Your task to perform on an android device: turn on location history Image 0: 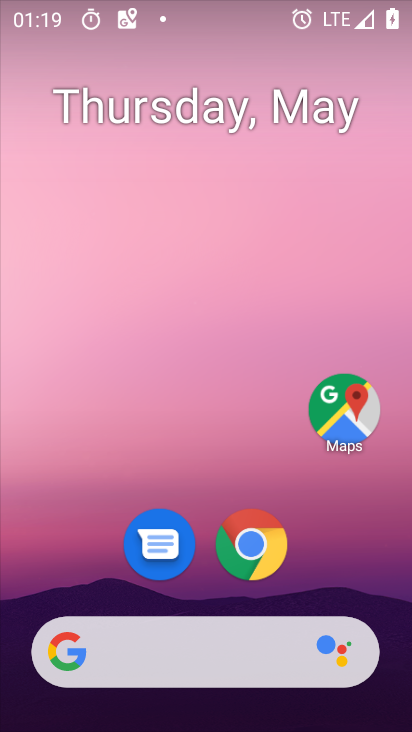
Step 0: drag from (368, 579) to (349, 178)
Your task to perform on an android device: turn on location history Image 1: 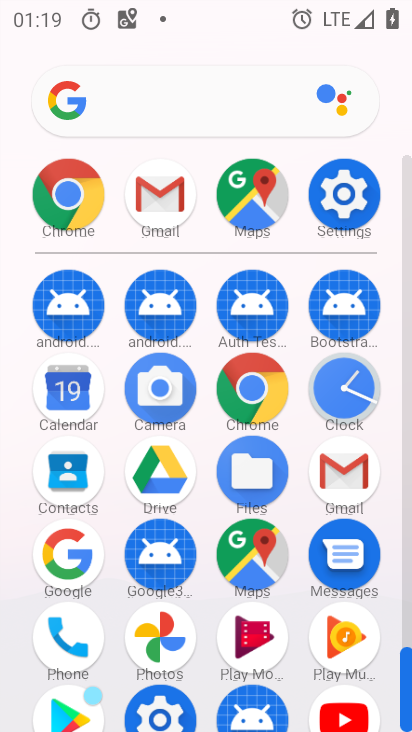
Step 1: drag from (293, 618) to (289, 340)
Your task to perform on an android device: turn on location history Image 2: 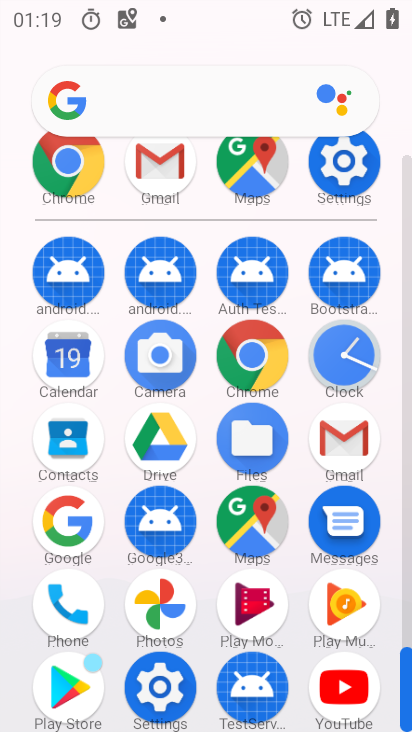
Step 2: drag from (293, 627) to (297, 375)
Your task to perform on an android device: turn on location history Image 3: 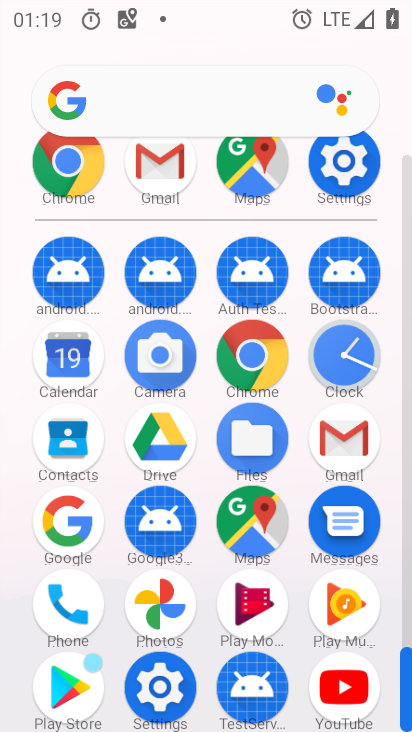
Step 3: click (350, 167)
Your task to perform on an android device: turn on location history Image 4: 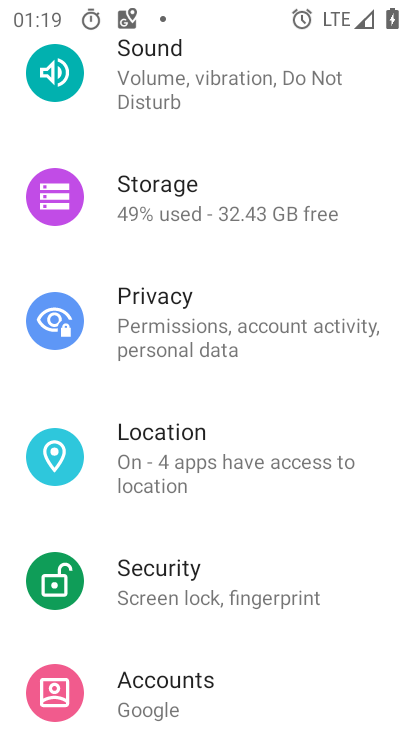
Step 4: drag from (356, 615) to (345, 350)
Your task to perform on an android device: turn on location history Image 5: 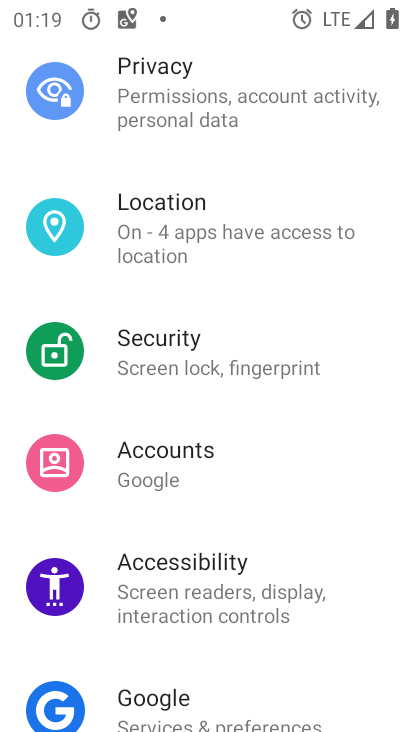
Step 5: drag from (321, 610) to (328, 404)
Your task to perform on an android device: turn on location history Image 6: 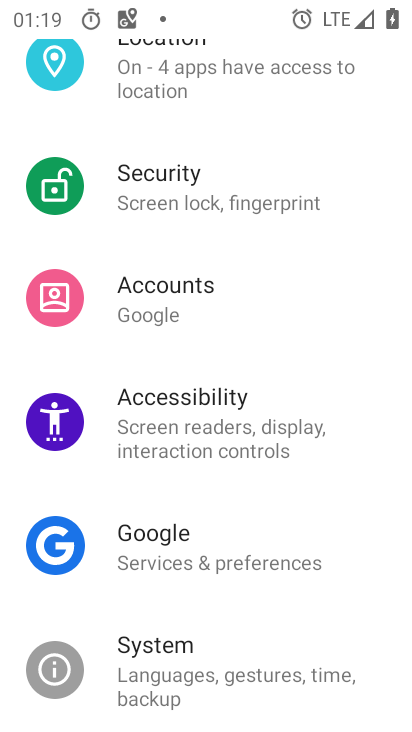
Step 6: drag from (316, 622) to (317, 447)
Your task to perform on an android device: turn on location history Image 7: 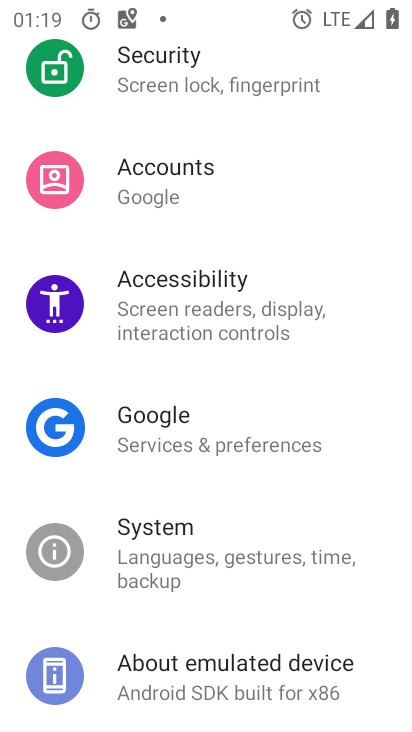
Step 7: drag from (343, 592) to (345, 346)
Your task to perform on an android device: turn on location history Image 8: 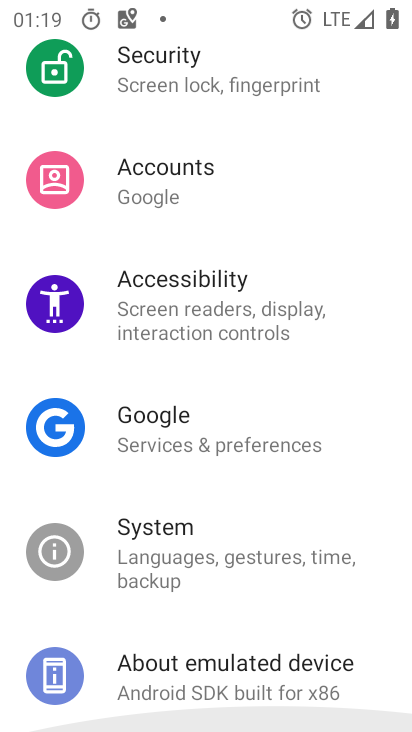
Step 8: drag from (351, 251) to (353, 499)
Your task to perform on an android device: turn on location history Image 9: 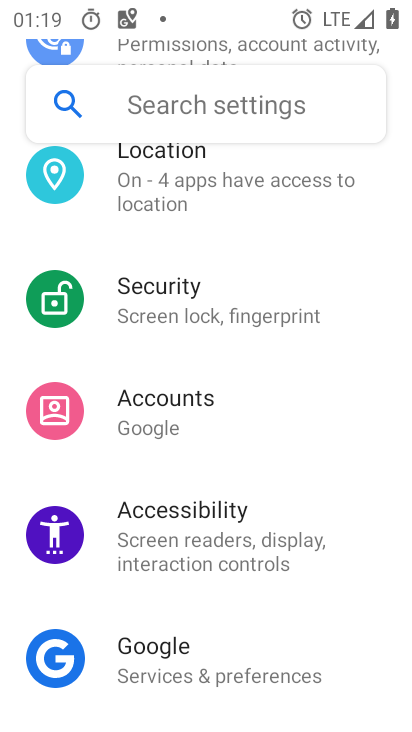
Step 9: drag from (335, 296) to (335, 477)
Your task to perform on an android device: turn on location history Image 10: 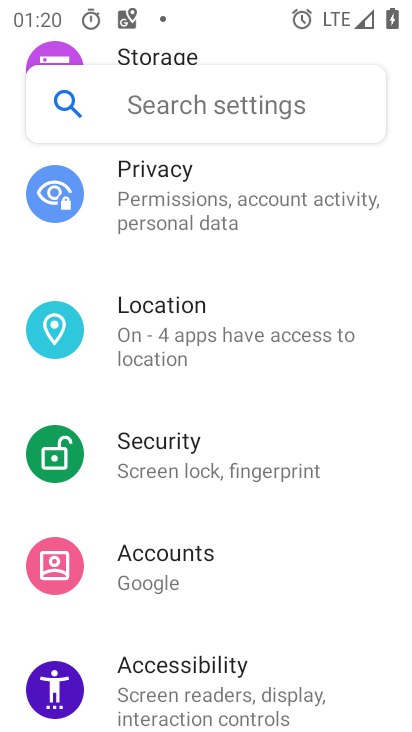
Step 10: drag from (353, 276) to (352, 450)
Your task to perform on an android device: turn on location history Image 11: 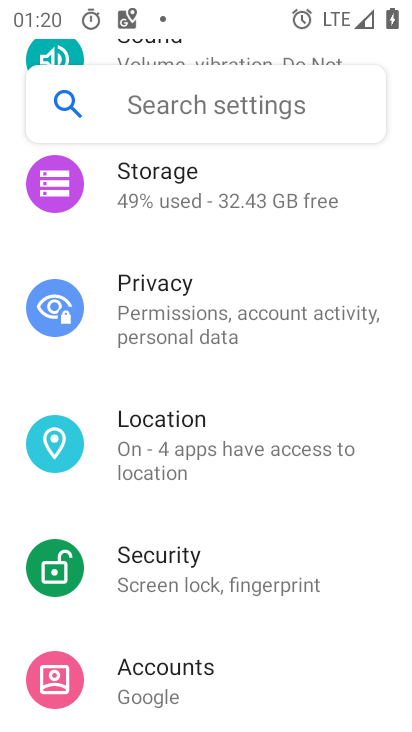
Step 11: click (231, 452)
Your task to perform on an android device: turn on location history Image 12: 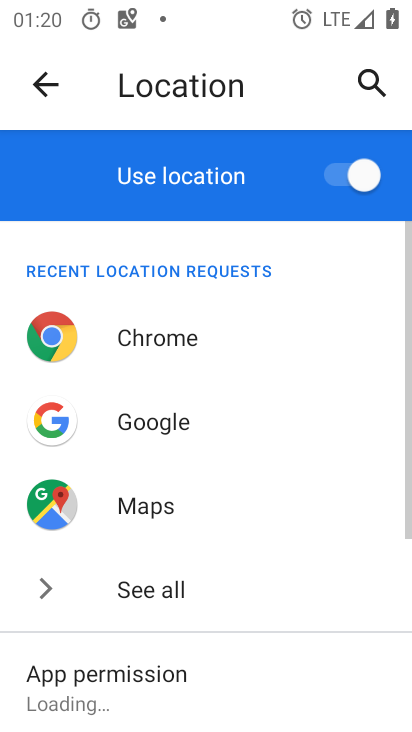
Step 12: drag from (249, 636) to (260, 401)
Your task to perform on an android device: turn on location history Image 13: 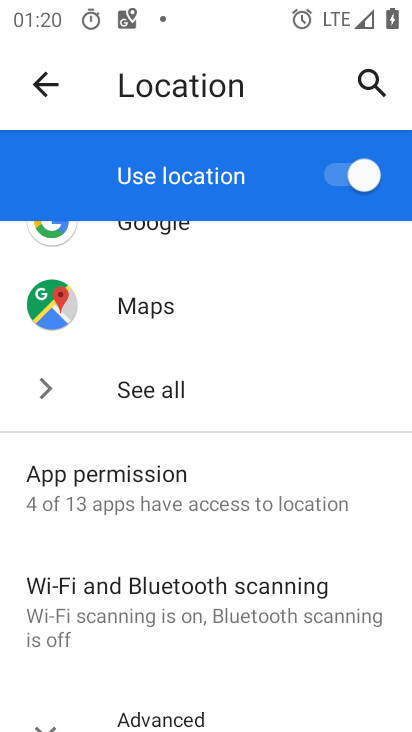
Step 13: drag from (227, 641) to (234, 386)
Your task to perform on an android device: turn on location history Image 14: 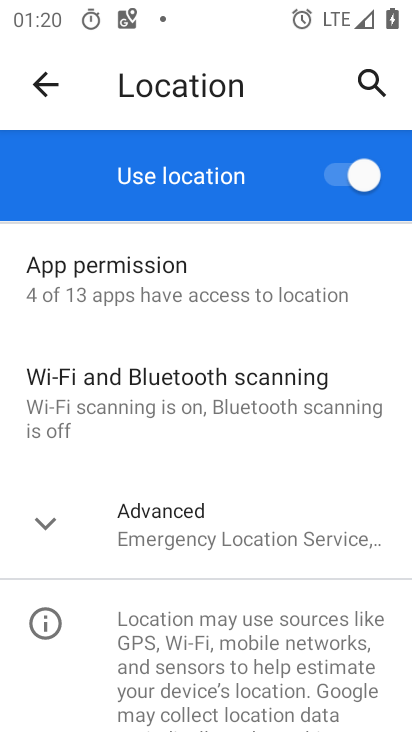
Step 14: click (284, 536)
Your task to perform on an android device: turn on location history Image 15: 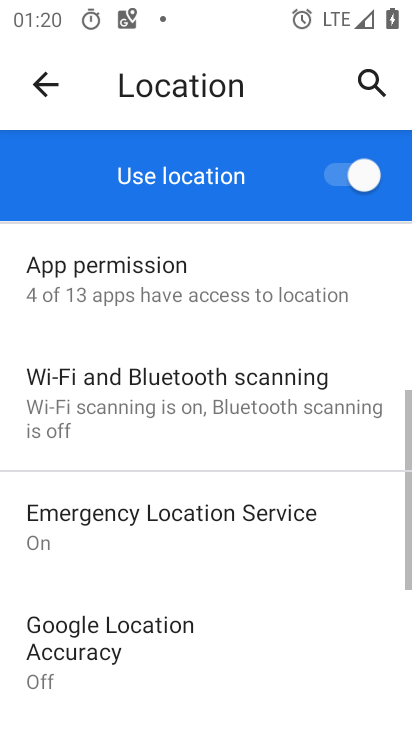
Step 15: drag from (255, 614) to (250, 435)
Your task to perform on an android device: turn on location history Image 16: 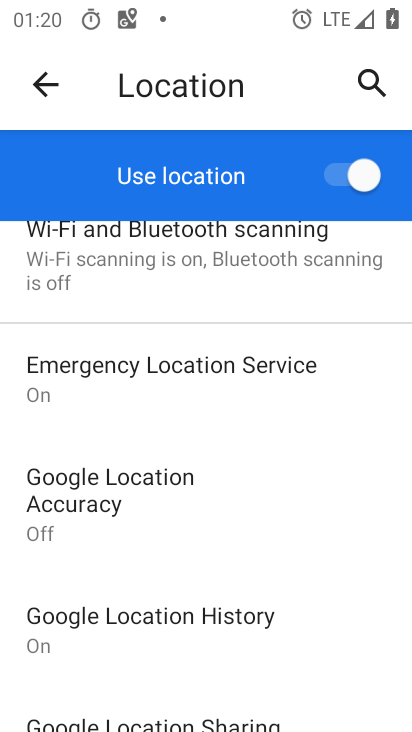
Step 16: drag from (274, 651) to (275, 420)
Your task to perform on an android device: turn on location history Image 17: 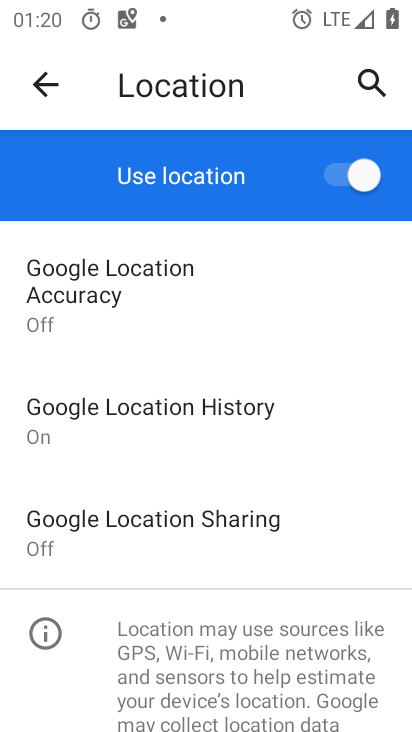
Step 17: drag from (304, 381) to (304, 561)
Your task to perform on an android device: turn on location history Image 18: 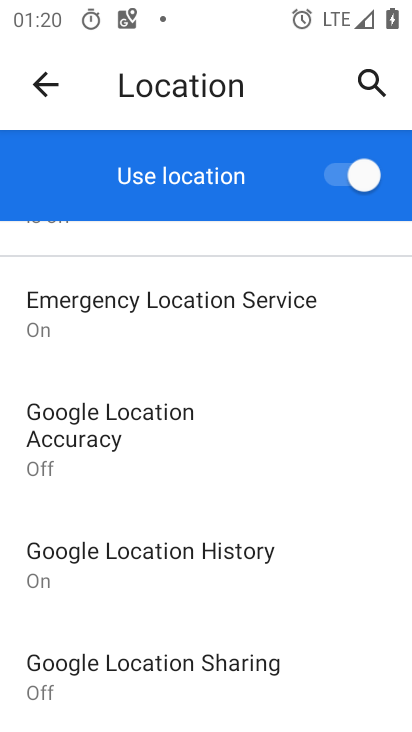
Step 18: click (96, 441)
Your task to perform on an android device: turn on location history Image 19: 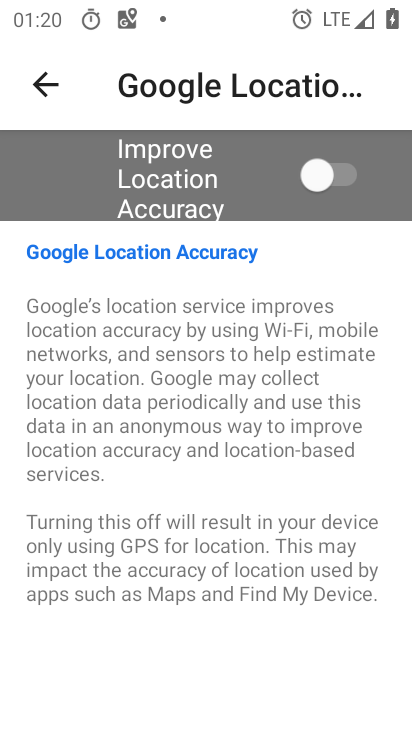
Step 19: click (39, 76)
Your task to perform on an android device: turn on location history Image 20: 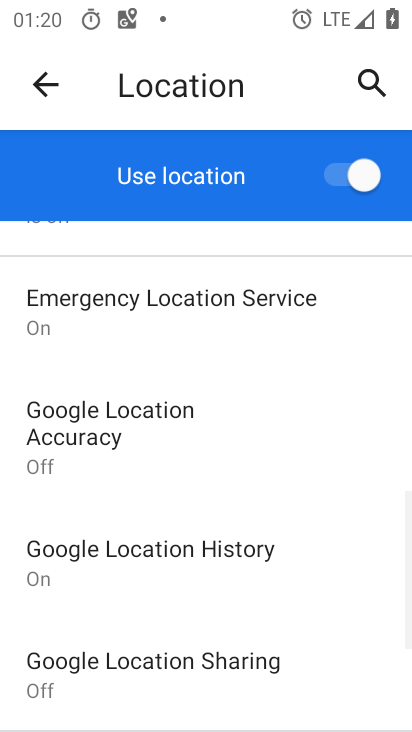
Step 20: click (143, 565)
Your task to perform on an android device: turn on location history Image 21: 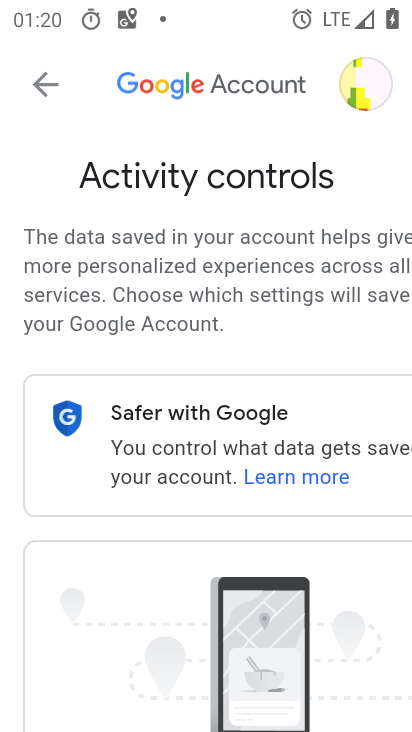
Step 21: drag from (253, 567) to (243, 339)
Your task to perform on an android device: turn on location history Image 22: 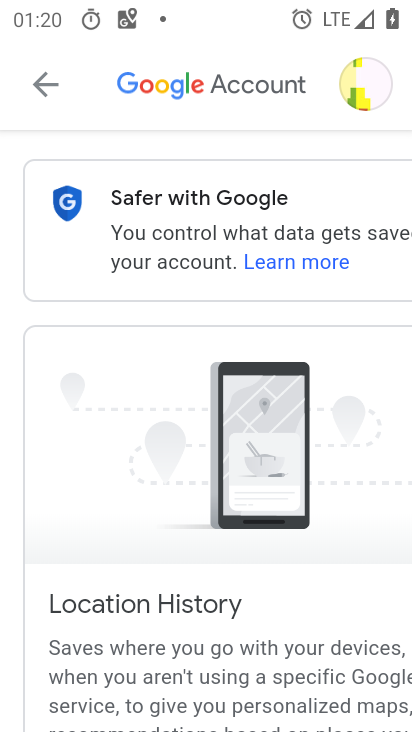
Step 22: drag from (229, 564) to (229, 325)
Your task to perform on an android device: turn on location history Image 23: 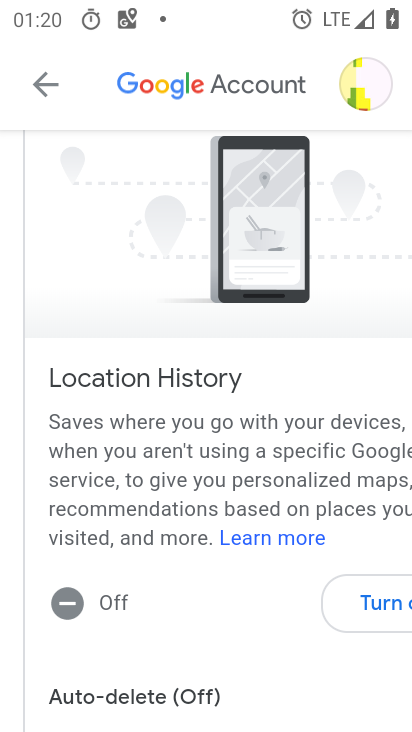
Step 23: click (389, 607)
Your task to perform on an android device: turn on location history Image 24: 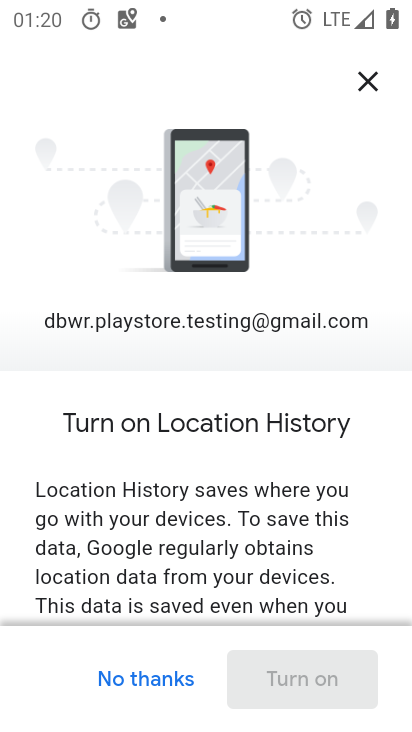
Step 24: drag from (316, 572) to (292, 272)
Your task to perform on an android device: turn on location history Image 25: 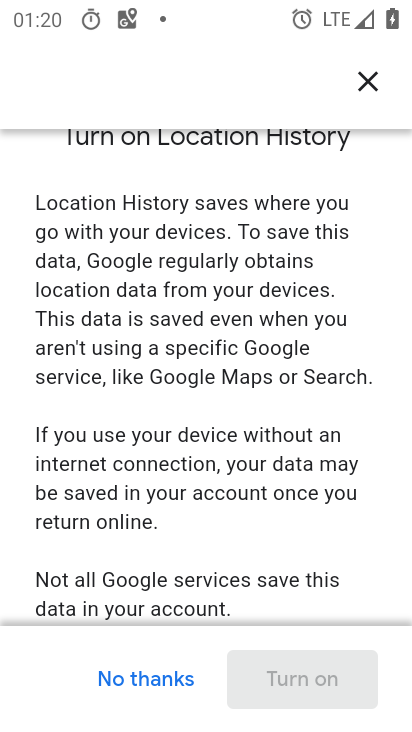
Step 25: drag from (271, 544) to (260, 296)
Your task to perform on an android device: turn on location history Image 26: 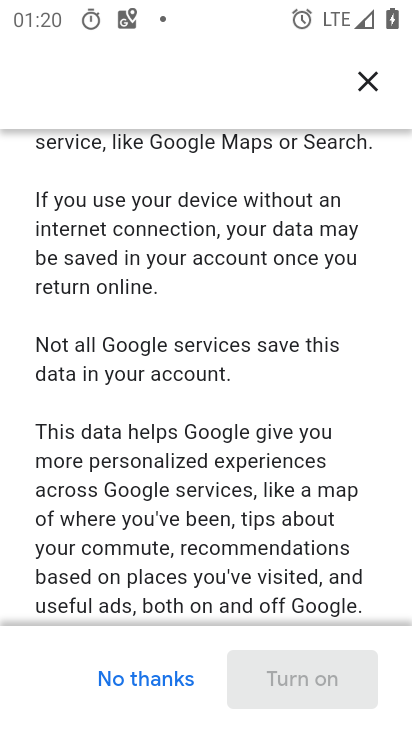
Step 26: drag from (234, 544) to (236, 338)
Your task to perform on an android device: turn on location history Image 27: 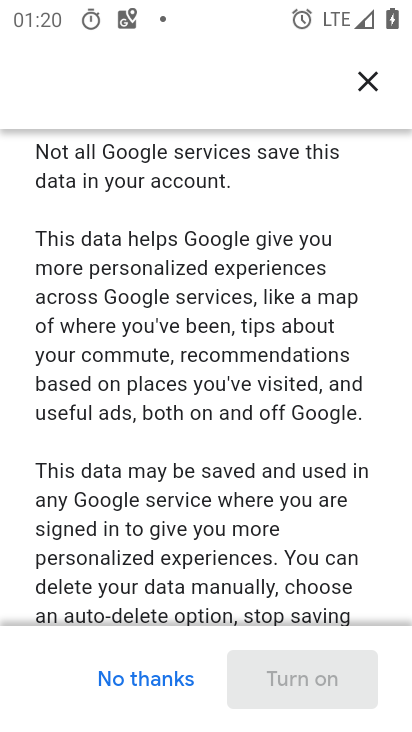
Step 27: drag from (271, 549) to (250, 331)
Your task to perform on an android device: turn on location history Image 28: 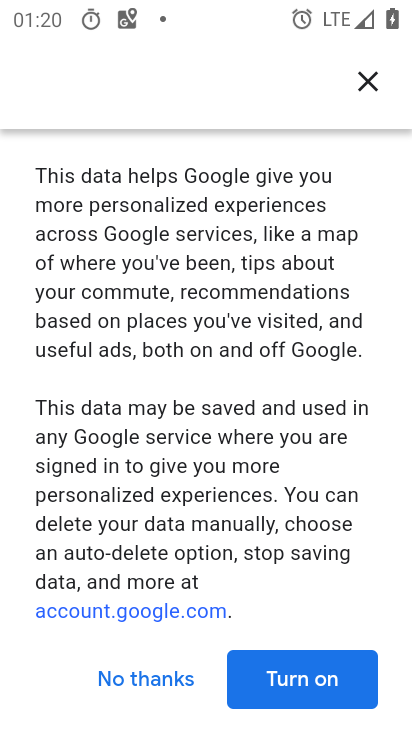
Step 28: click (307, 689)
Your task to perform on an android device: turn on location history Image 29: 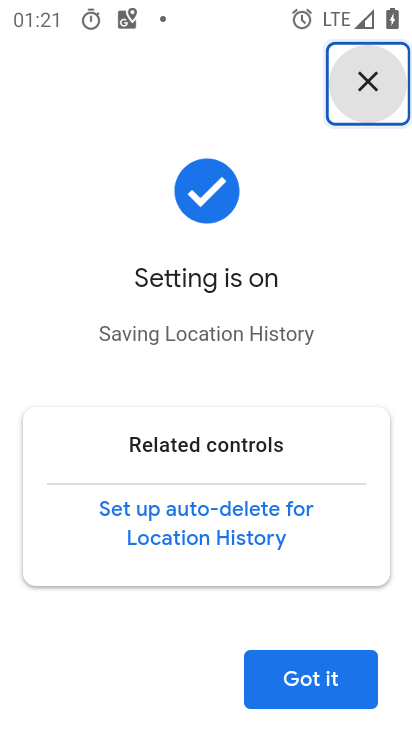
Step 29: task complete